Your task to perform on an android device: turn off wifi Image 0: 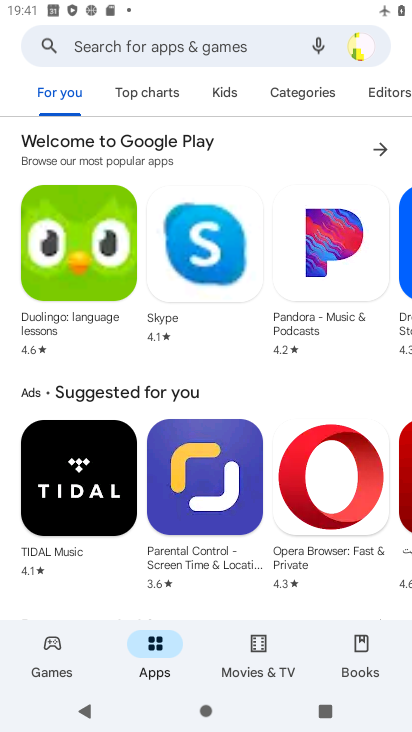
Step 0: press home button
Your task to perform on an android device: turn off wifi Image 1: 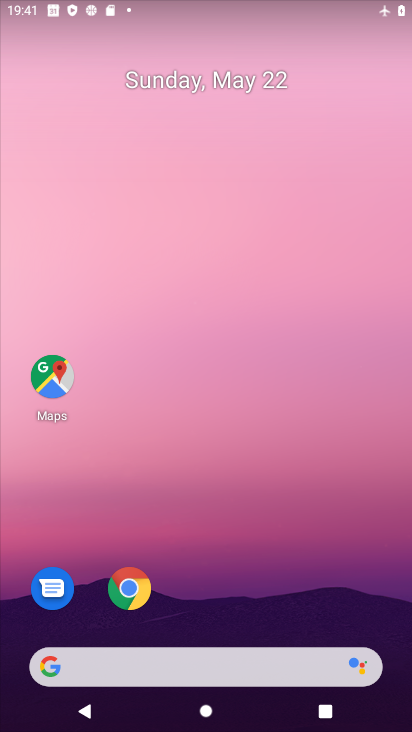
Step 1: drag from (235, 545) to (127, 86)
Your task to perform on an android device: turn off wifi Image 2: 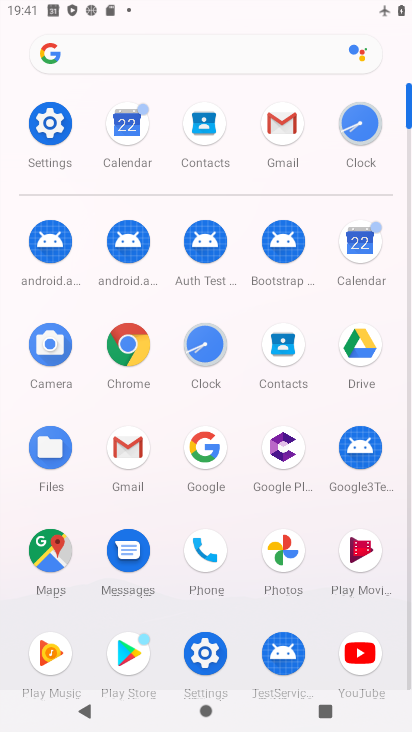
Step 2: click (45, 120)
Your task to perform on an android device: turn off wifi Image 3: 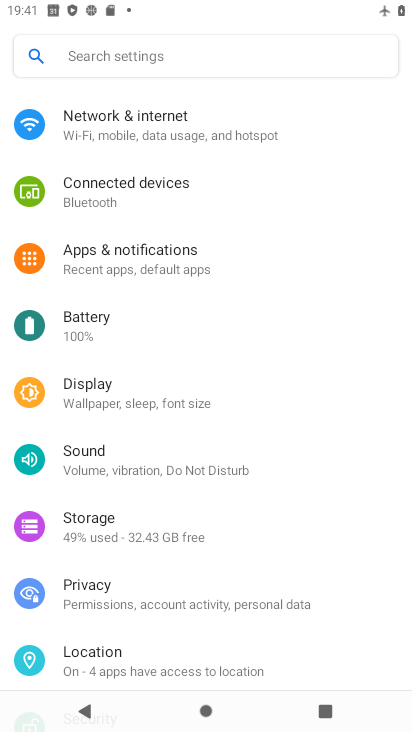
Step 3: click (134, 115)
Your task to perform on an android device: turn off wifi Image 4: 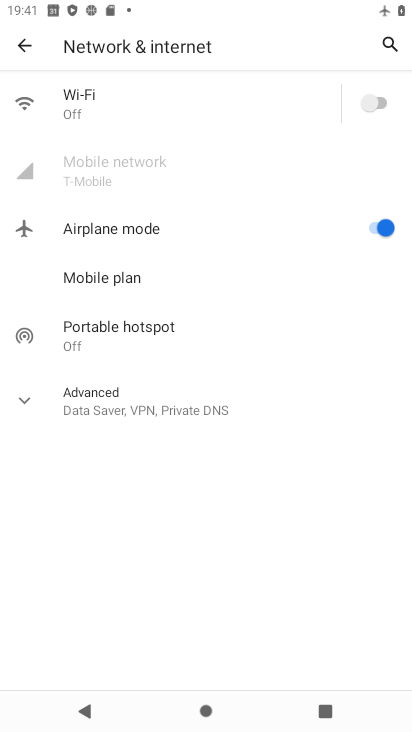
Step 4: task complete